Your task to perform on an android device: move a message to another label in the gmail app Image 0: 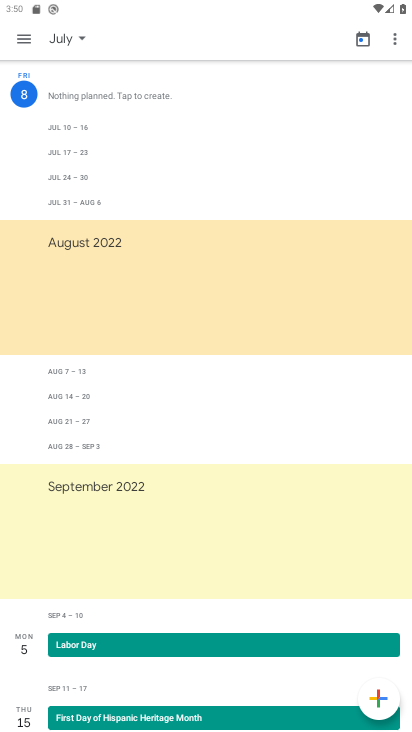
Step 0: press home button
Your task to perform on an android device: move a message to another label in the gmail app Image 1: 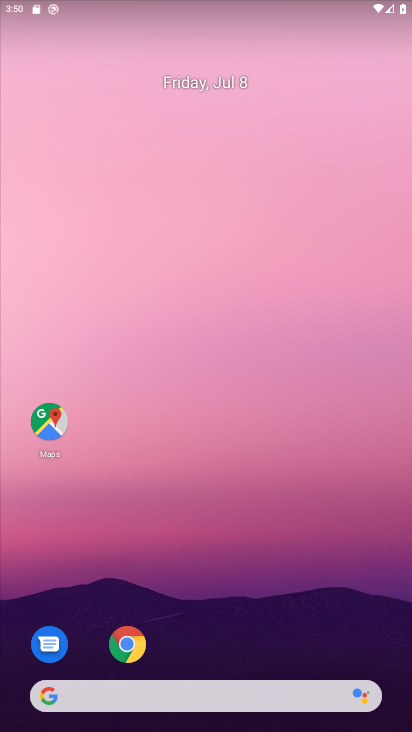
Step 1: drag from (376, 632) to (352, 204)
Your task to perform on an android device: move a message to another label in the gmail app Image 2: 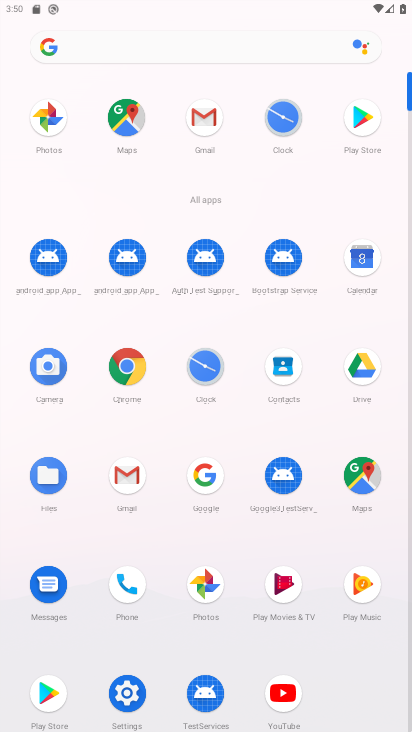
Step 2: click (125, 474)
Your task to perform on an android device: move a message to another label in the gmail app Image 3: 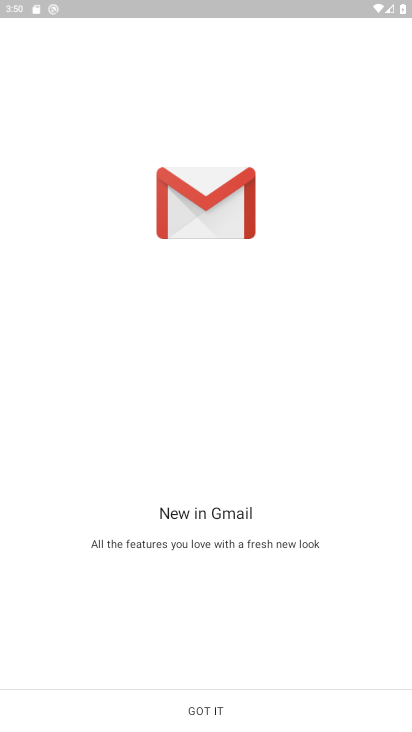
Step 3: click (202, 710)
Your task to perform on an android device: move a message to another label in the gmail app Image 4: 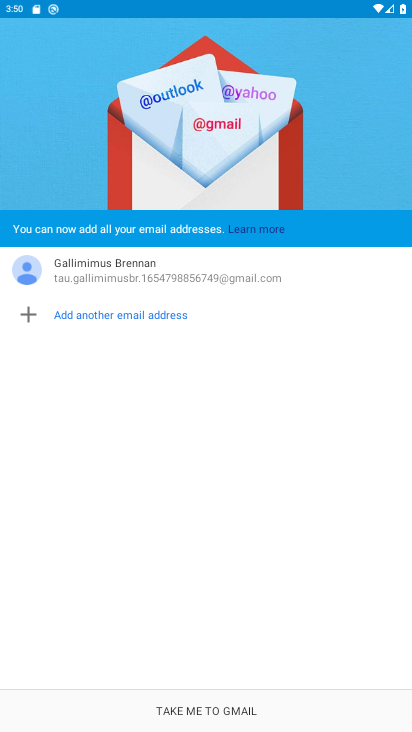
Step 4: click (208, 709)
Your task to perform on an android device: move a message to another label in the gmail app Image 5: 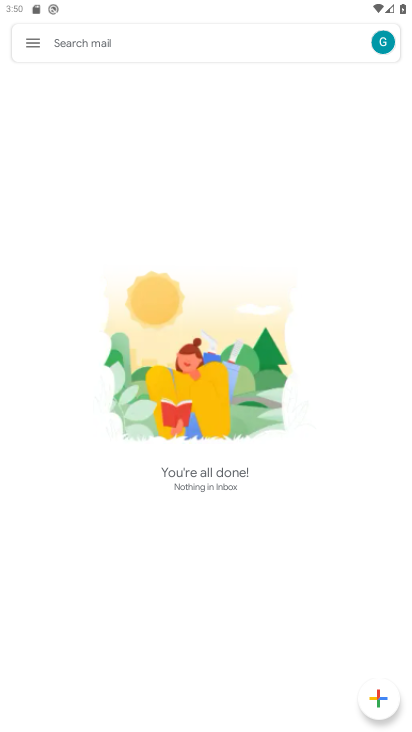
Step 5: click (31, 41)
Your task to perform on an android device: move a message to another label in the gmail app Image 6: 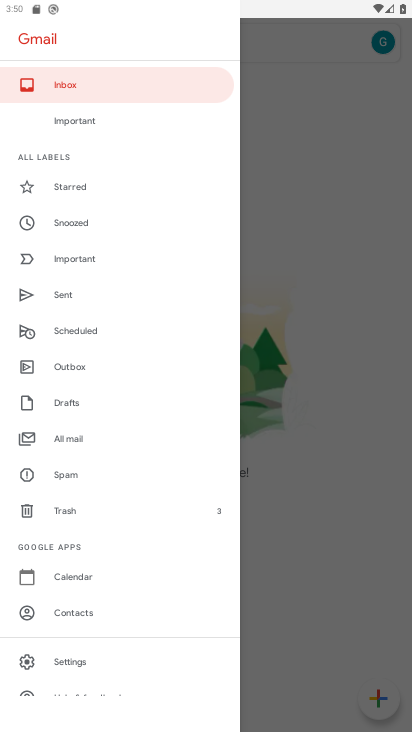
Step 6: click (74, 439)
Your task to perform on an android device: move a message to another label in the gmail app Image 7: 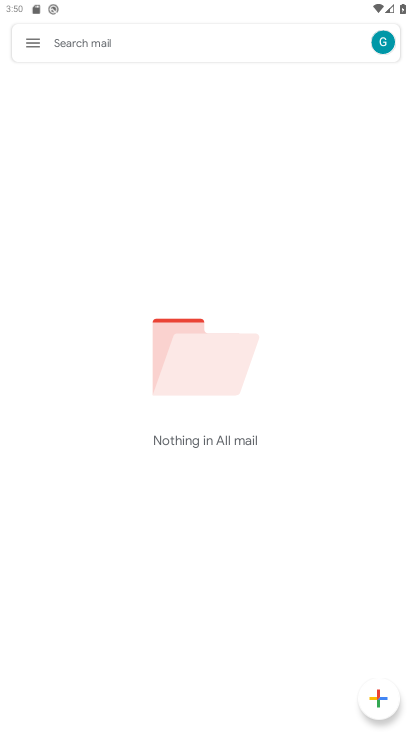
Step 7: task complete